Your task to perform on an android device: change alarm snooze length Image 0: 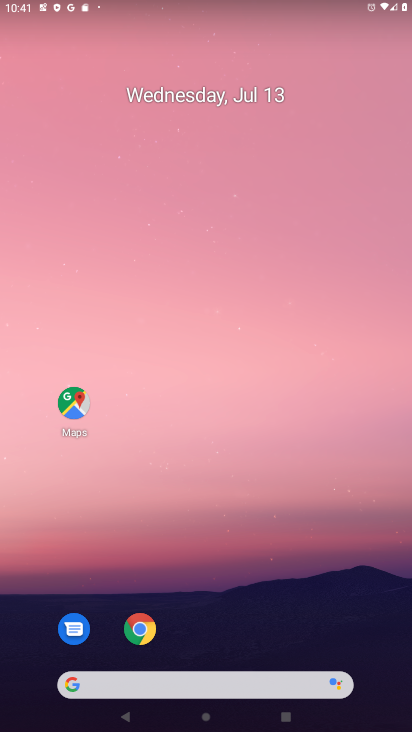
Step 0: drag from (320, 619) to (315, 406)
Your task to perform on an android device: change alarm snooze length Image 1: 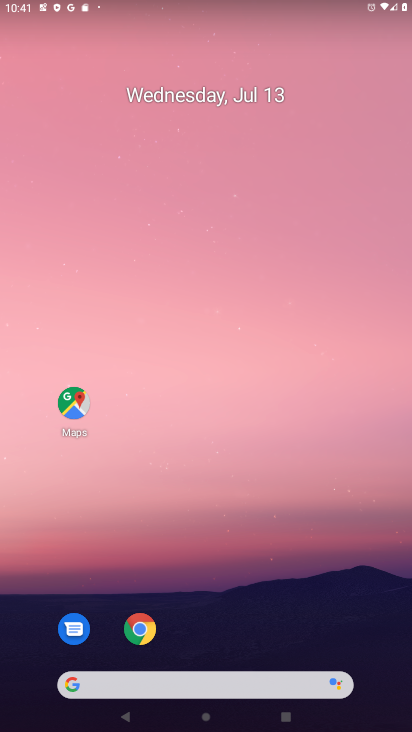
Step 1: drag from (244, 624) to (218, 367)
Your task to perform on an android device: change alarm snooze length Image 2: 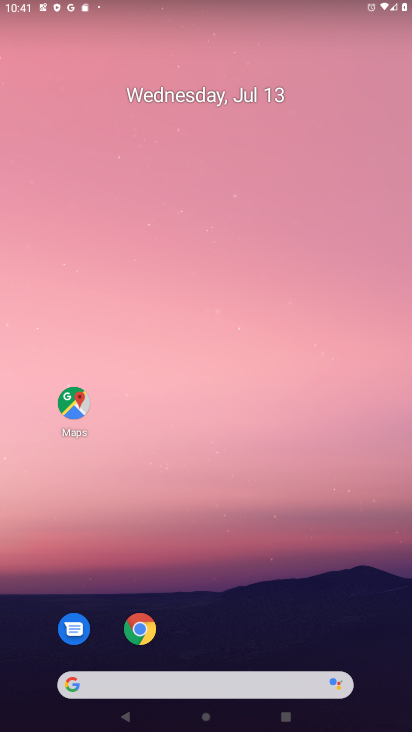
Step 2: drag from (257, 630) to (213, 130)
Your task to perform on an android device: change alarm snooze length Image 3: 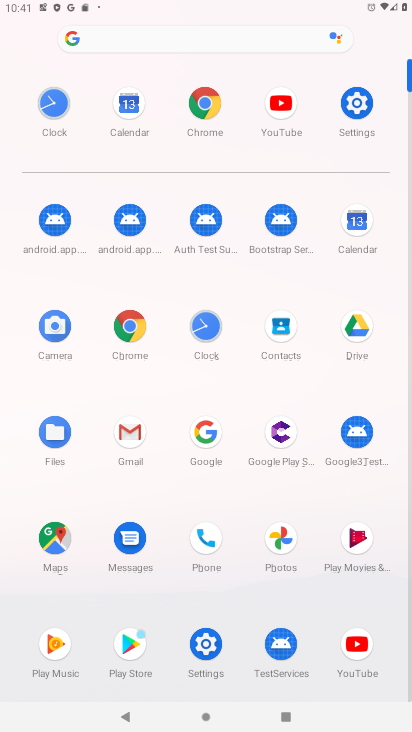
Step 3: click (126, 111)
Your task to perform on an android device: change alarm snooze length Image 4: 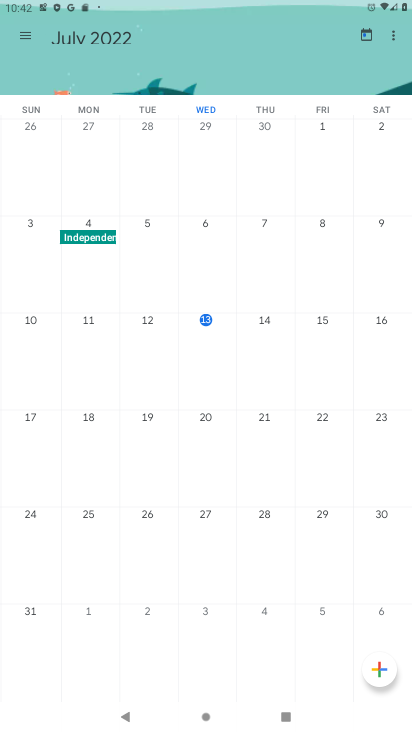
Step 4: press home button
Your task to perform on an android device: change alarm snooze length Image 5: 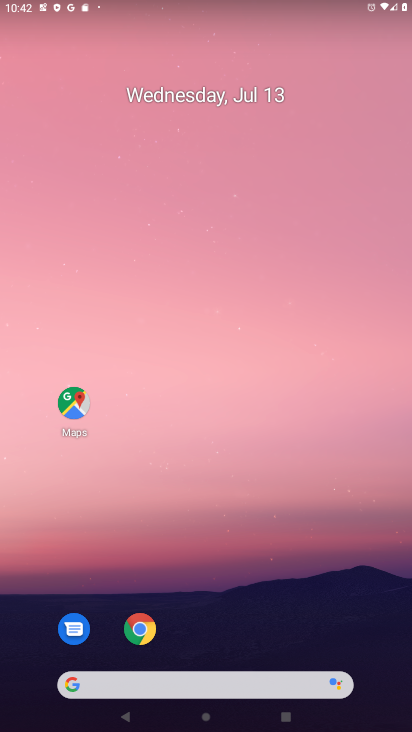
Step 5: drag from (312, 617) to (283, 287)
Your task to perform on an android device: change alarm snooze length Image 6: 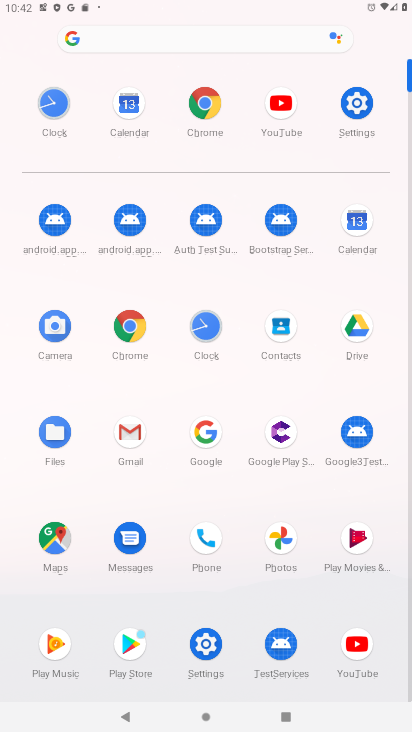
Step 6: click (65, 108)
Your task to perform on an android device: change alarm snooze length Image 7: 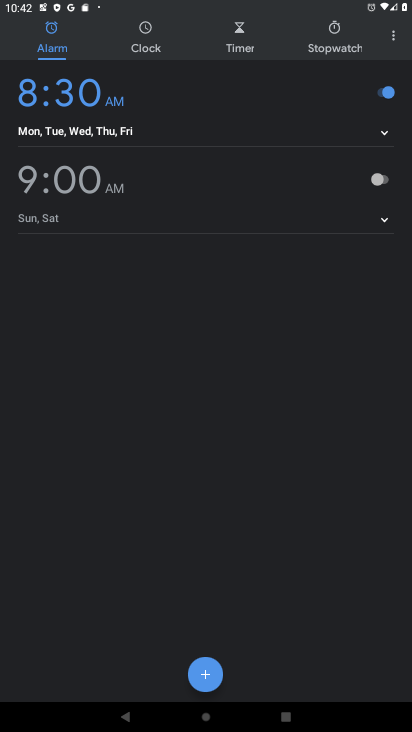
Step 7: click (389, 38)
Your task to perform on an android device: change alarm snooze length Image 8: 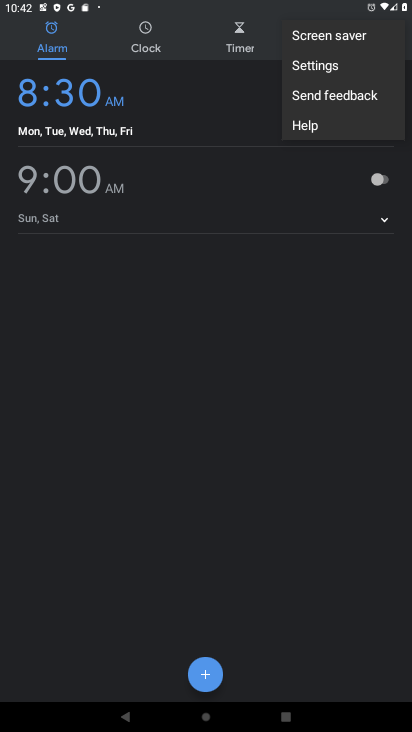
Step 8: click (352, 58)
Your task to perform on an android device: change alarm snooze length Image 9: 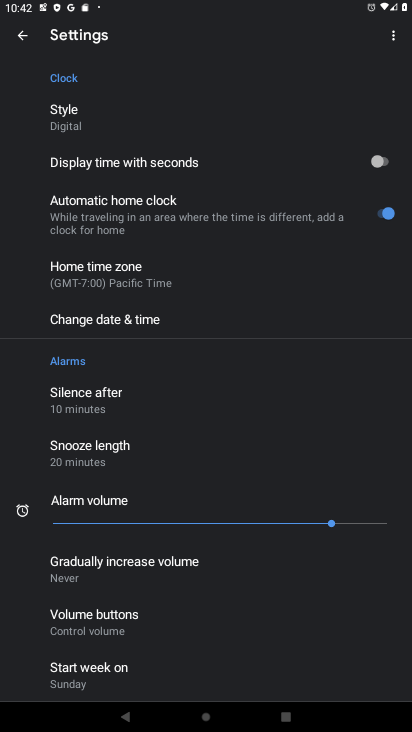
Step 9: click (171, 452)
Your task to perform on an android device: change alarm snooze length Image 10: 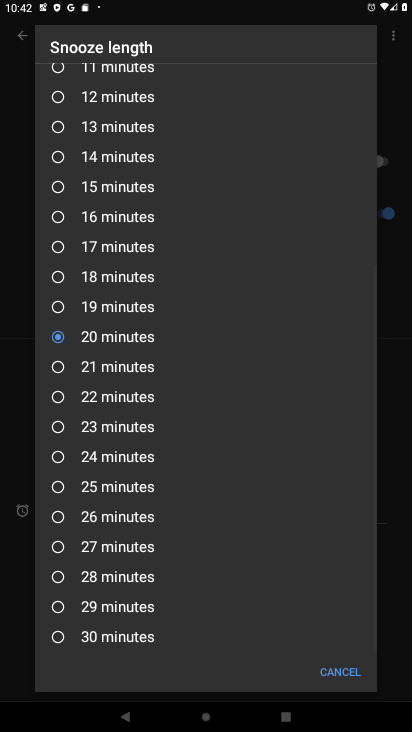
Step 10: click (134, 207)
Your task to perform on an android device: change alarm snooze length Image 11: 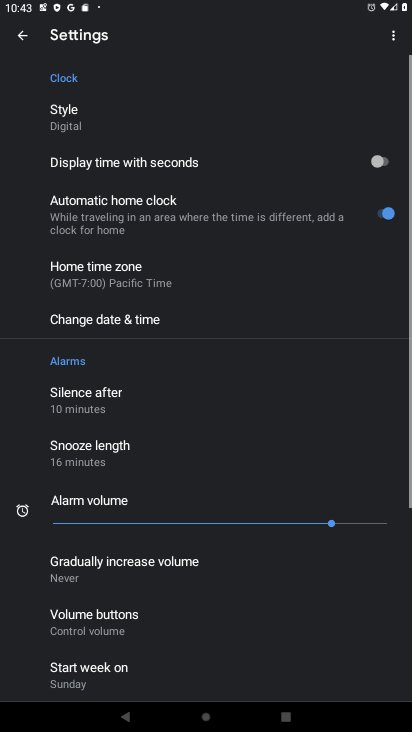
Step 11: task complete